Your task to perform on an android device: open a new tab in the chrome app Image 0: 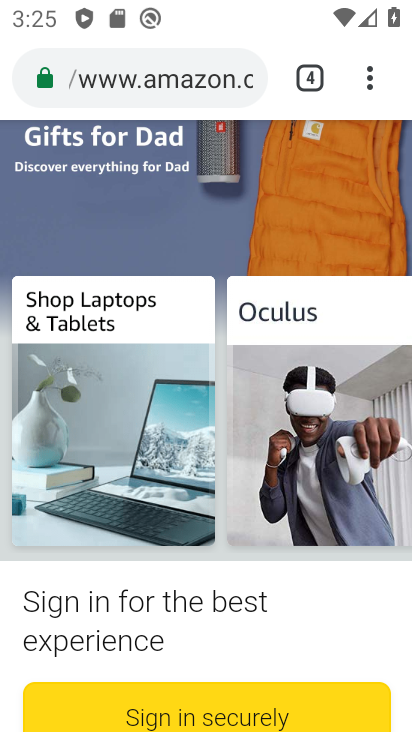
Step 0: click (365, 75)
Your task to perform on an android device: open a new tab in the chrome app Image 1: 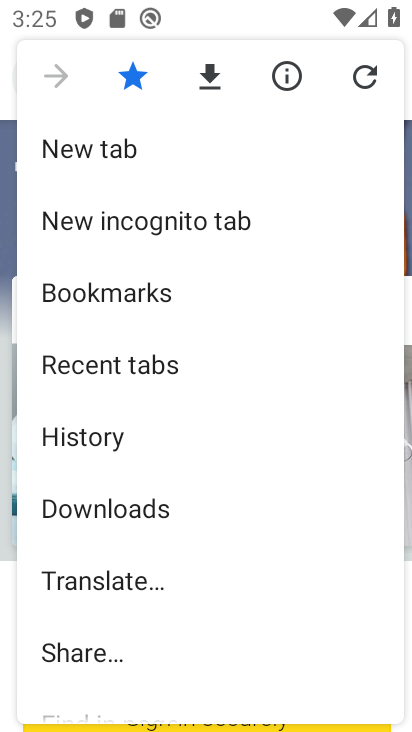
Step 1: click (126, 157)
Your task to perform on an android device: open a new tab in the chrome app Image 2: 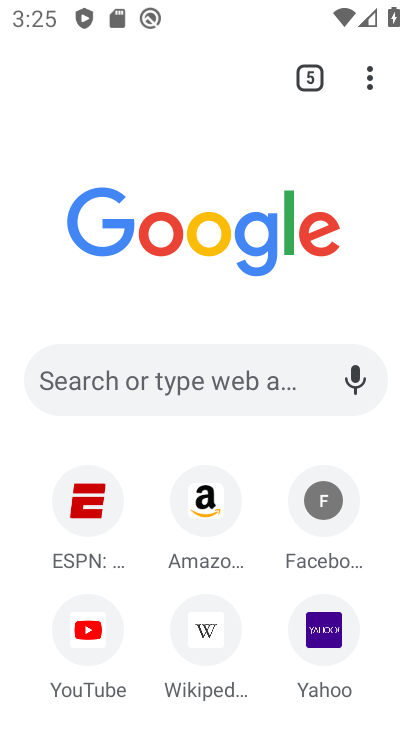
Step 2: task complete